Your task to perform on an android device: Open the phone app and click the voicemail tab. Image 0: 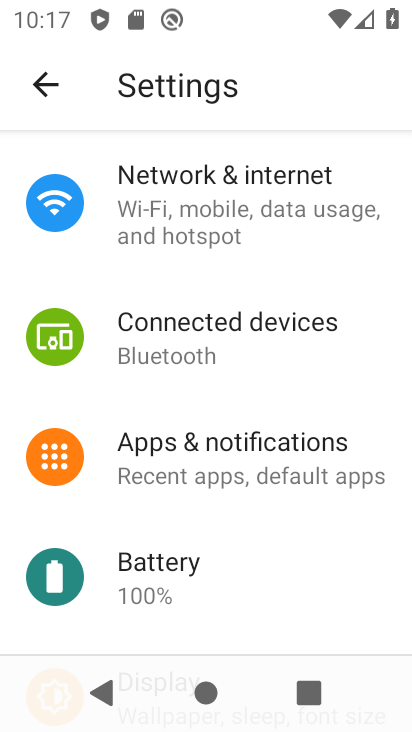
Step 0: press home button
Your task to perform on an android device: Open the phone app and click the voicemail tab. Image 1: 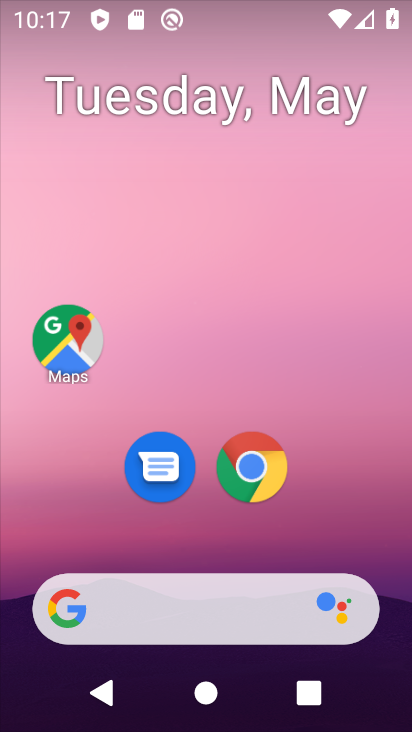
Step 1: drag from (227, 507) to (271, 14)
Your task to perform on an android device: Open the phone app and click the voicemail tab. Image 2: 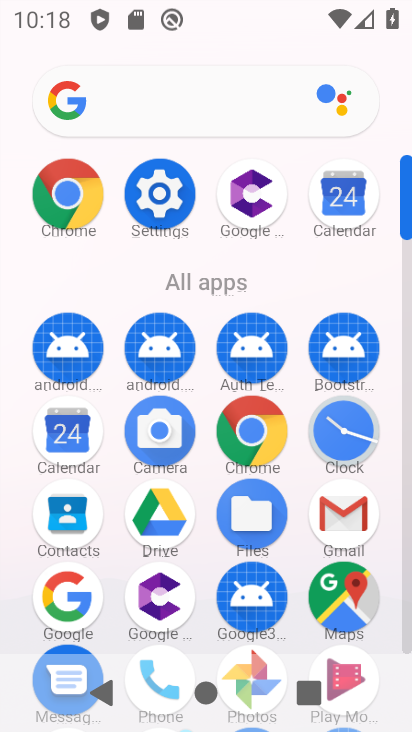
Step 2: drag from (199, 614) to (214, 218)
Your task to perform on an android device: Open the phone app and click the voicemail tab. Image 3: 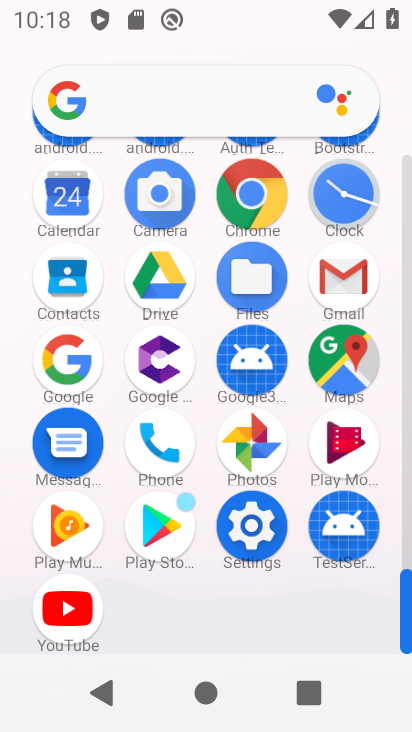
Step 3: click (146, 452)
Your task to perform on an android device: Open the phone app and click the voicemail tab. Image 4: 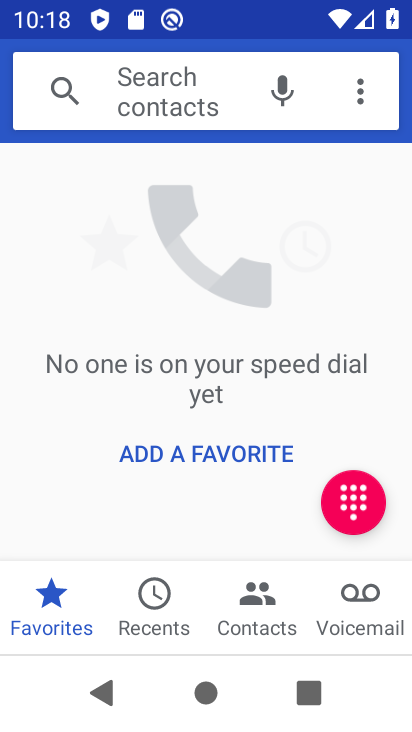
Step 4: click (350, 596)
Your task to perform on an android device: Open the phone app and click the voicemail tab. Image 5: 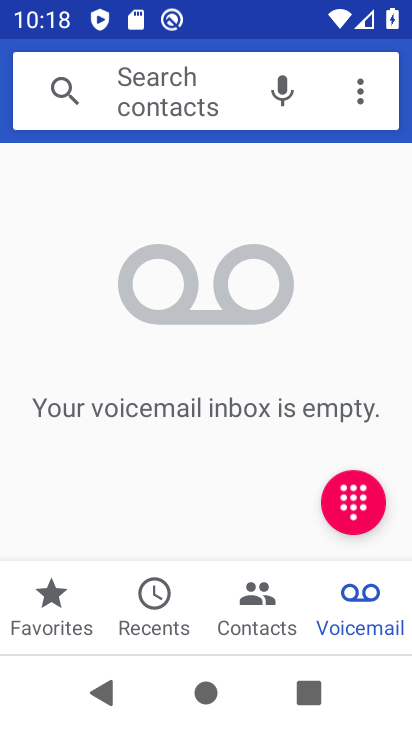
Step 5: task complete